Your task to perform on an android device: Go to location settings Image 0: 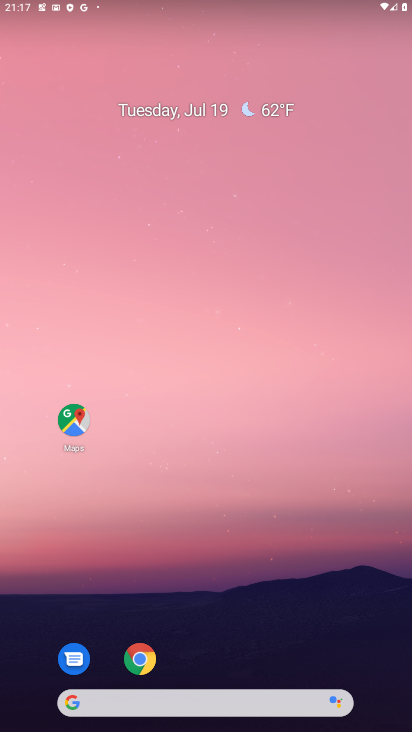
Step 0: press home button
Your task to perform on an android device: Go to location settings Image 1: 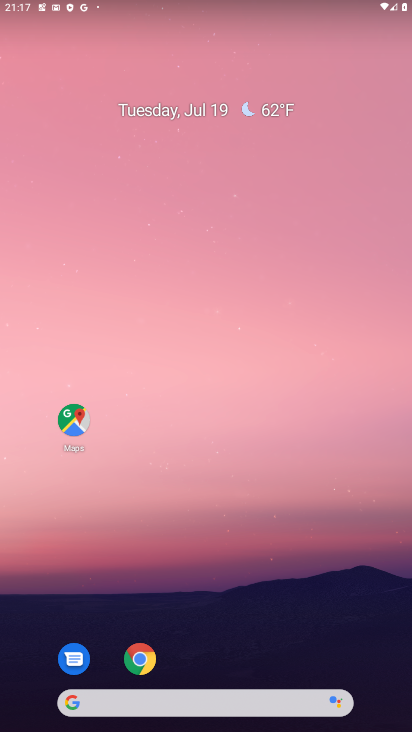
Step 1: drag from (270, 680) to (245, 7)
Your task to perform on an android device: Go to location settings Image 2: 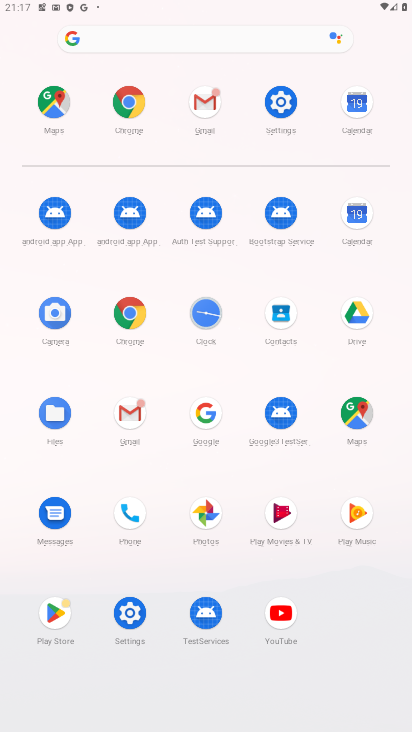
Step 2: click (136, 608)
Your task to perform on an android device: Go to location settings Image 3: 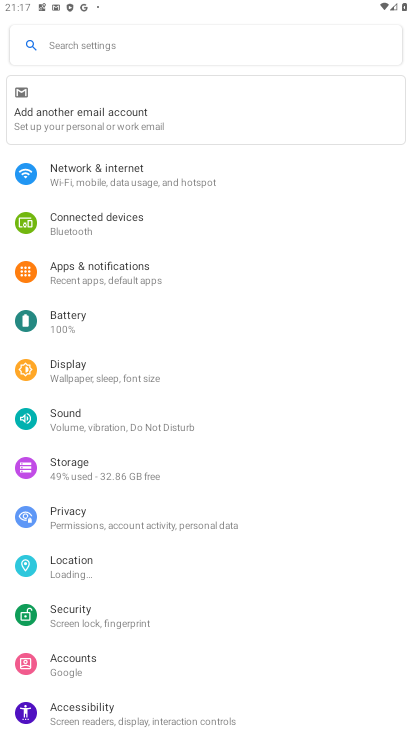
Step 3: click (80, 575)
Your task to perform on an android device: Go to location settings Image 4: 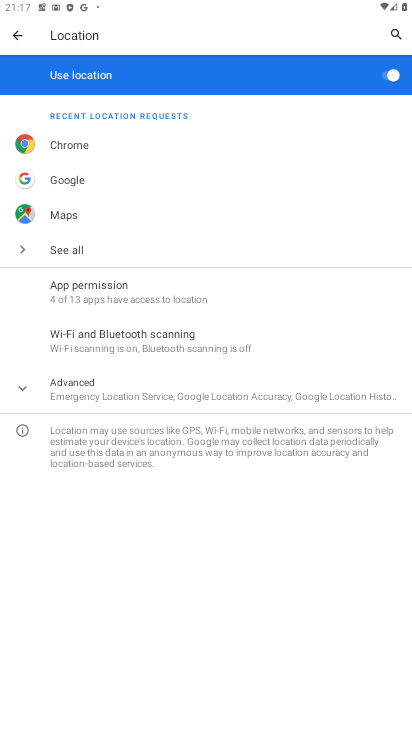
Step 4: task complete